Your task to perform on an android device: toggle notification dots Image 0: 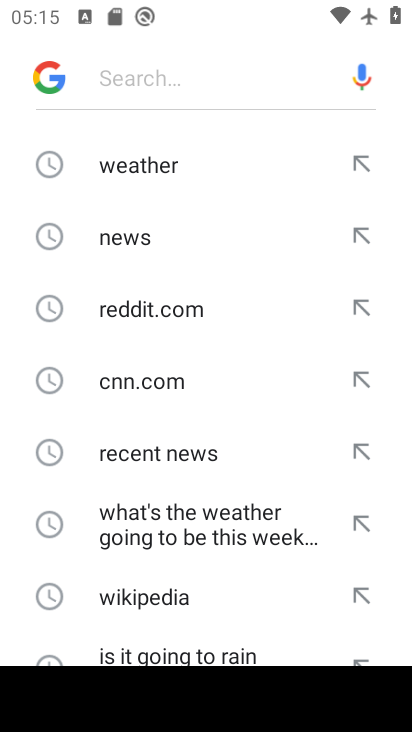
Step 0: press home button
Your task to perform on an android device: toggle notification dots Image 1: 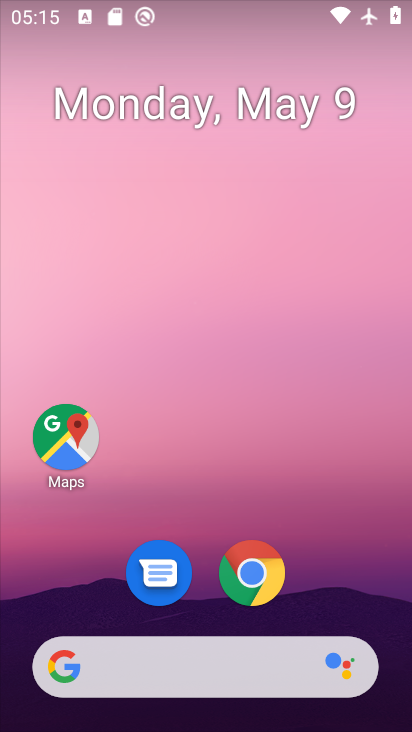
Step 1: drag from (384, 637) to (246, 182)
Your task to perform on an android device: toggle notification dots Image 2: 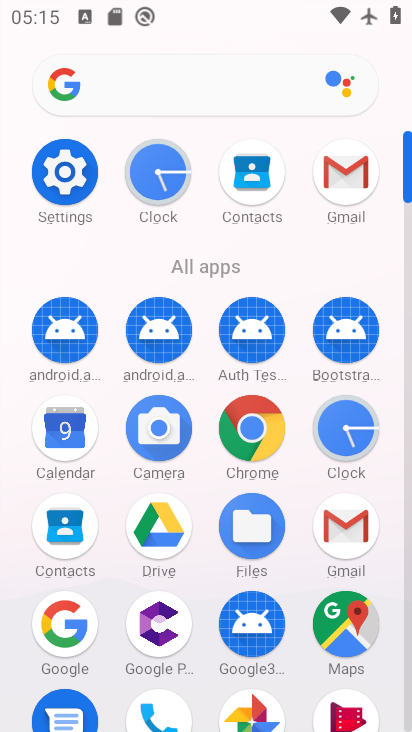
Step 2: click (407, 702)
Your task to perform on an android device: toggle notification dots Image 3: 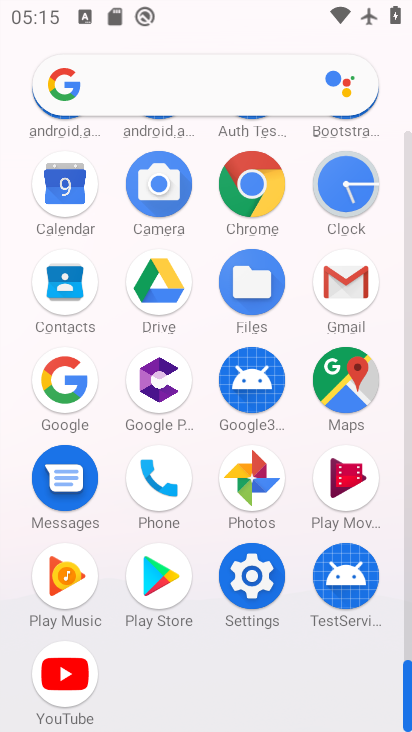
Step 3: click (252, 576)
Your task to perform on an android device: toggle notification dots Image 4: 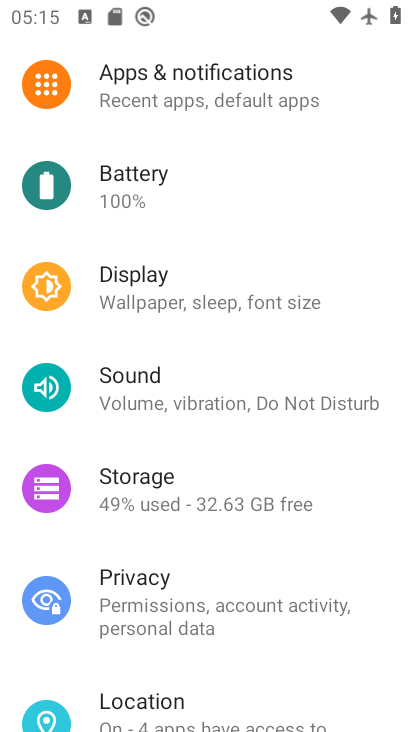
Step 4: click (179, 86)
Your task to perform on an android device: toggle notification dots Image 5: 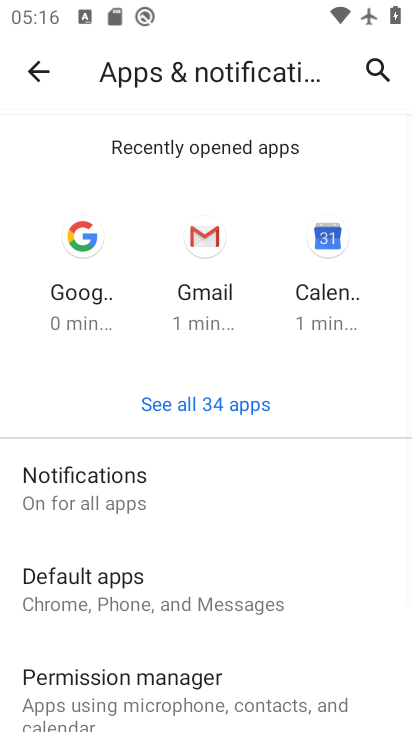
Step 5: click (55, 468)
Your task to perform on an android device: toggle notification dots Image 6: 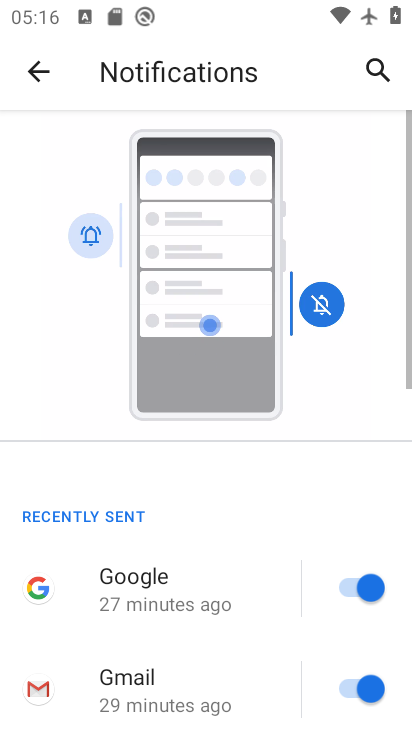
Step 6: drag from (277, 655) to (278, 157)
Your task to perform on an android device: toggle notification dots Image 7: 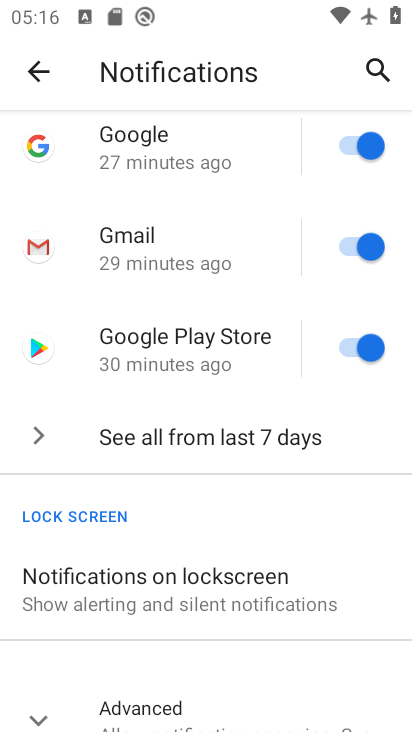
Step 7: drag from (235, 632) to (239, 162)
Your task to perform on an android device: toggle notification dots Image 8: 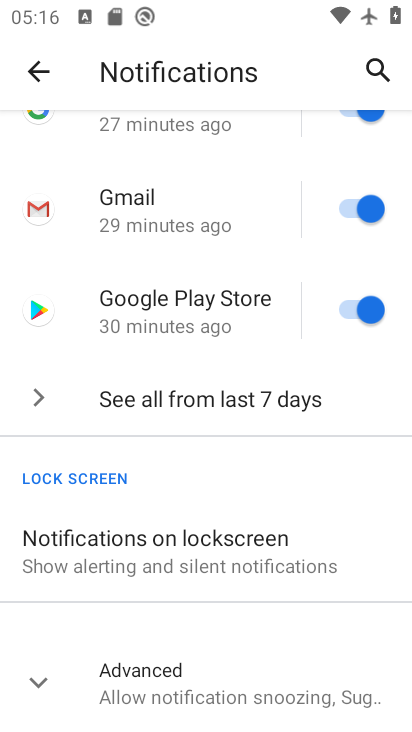
Step 8: click (36, 681)
Your task to perform on an android device: toggle notification dots Image 9: 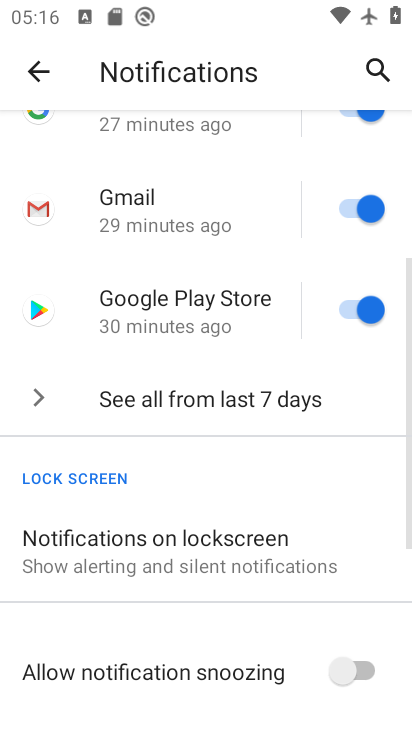
Step 9: drag from (229, 694) to (279, 228)
Your task to perform on an android device: toggle notification dots Image 10: 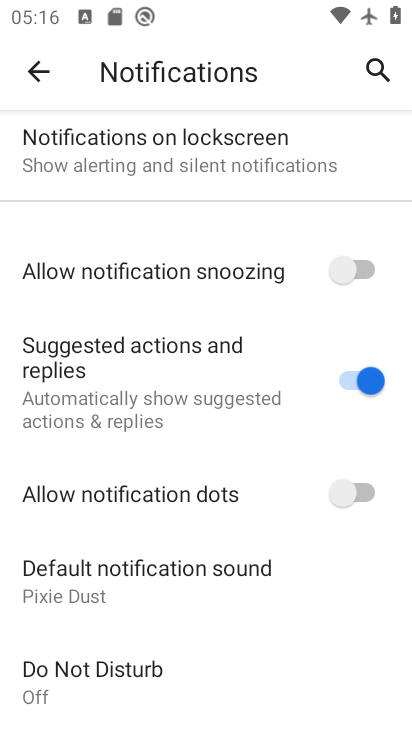
Step 10: click (366, 496)
Your task to perform on an android device: toggle notification dots Image 11: 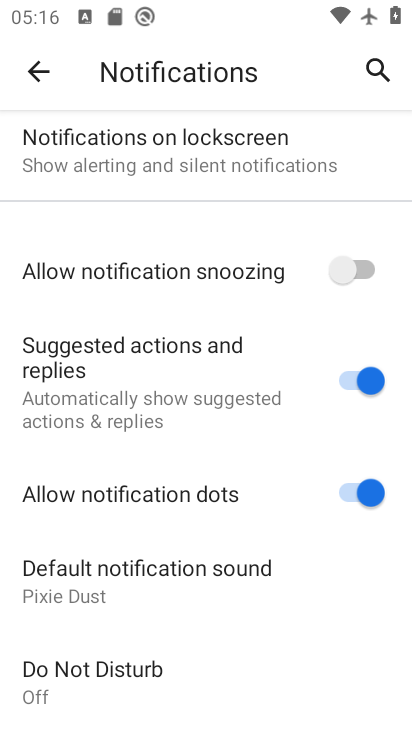
Step 11: task complete